Your task to perform on an android device: turn smart compose on in the gmail app Image 0: 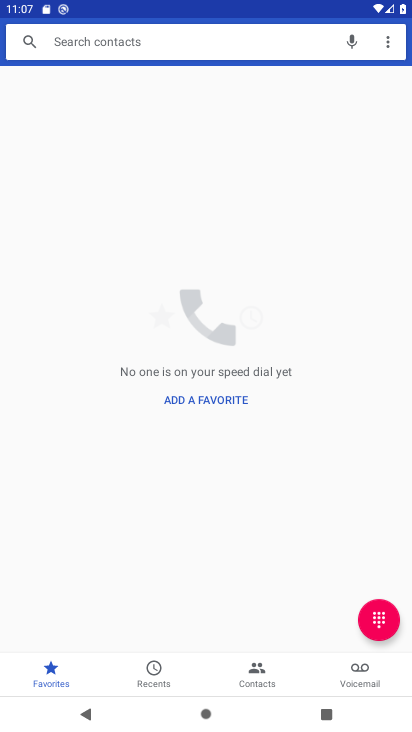
Step 0: press home button
Your task to perform on an android device: turn smart compose on in the gmail app Image 1: 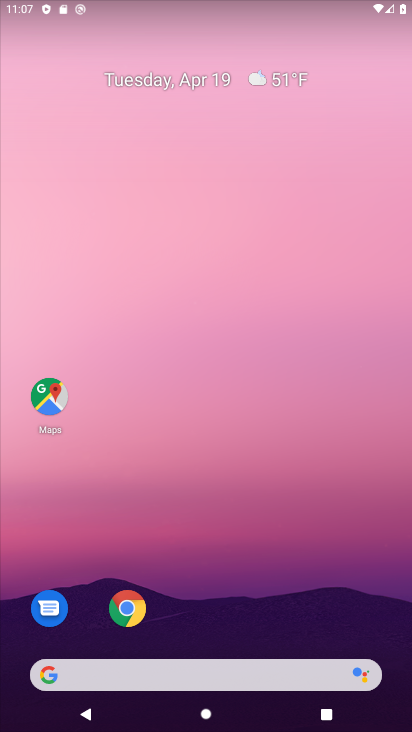
Step 1: drag from (373, 617) to (382, 88)
Your task to perform on an android device: turn smart compose on in the gmail app Image 2: 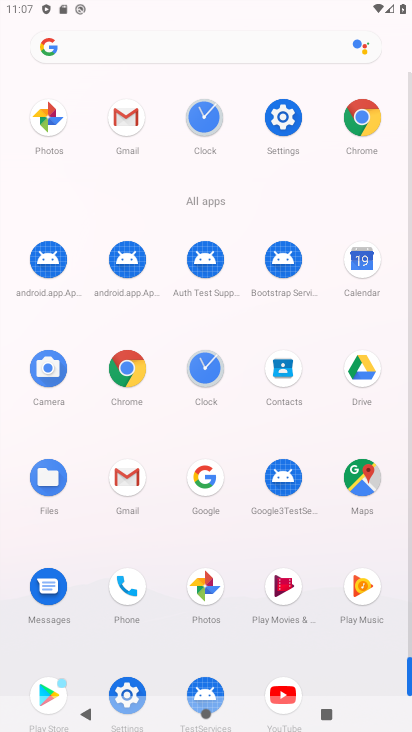
Step 2: click (117, 123)
Your task to perform on an android device: turn smart compose on in the gmail app Image 3: 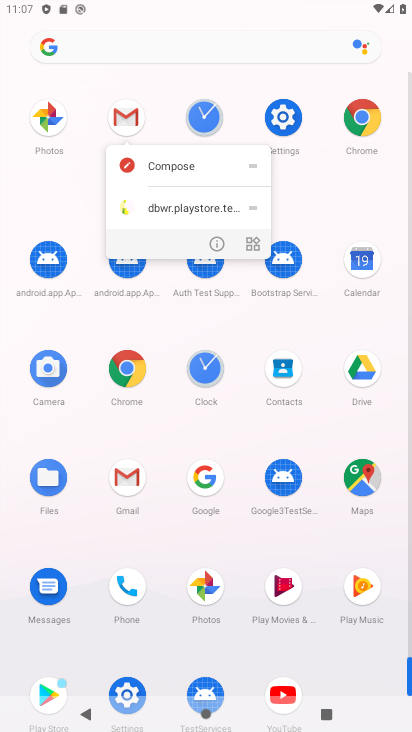
Step 3: click (117, 123)
Your task to perform on an android device: turn smart compose on in the gmail app Image 4: 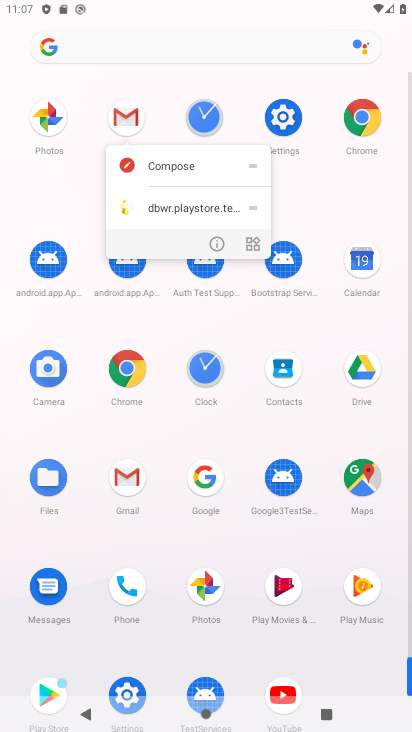
Step 4: click (117, 122)
Your task to perform on an android device: turn smart compose on in the gmail app Image 5: 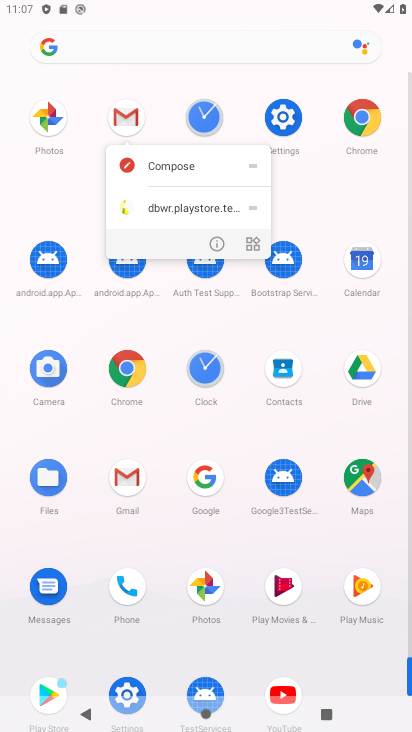
Step 5: click (117, 121)
Your task to perform on an android device: turn smart compose on in the gmail app Image 6: 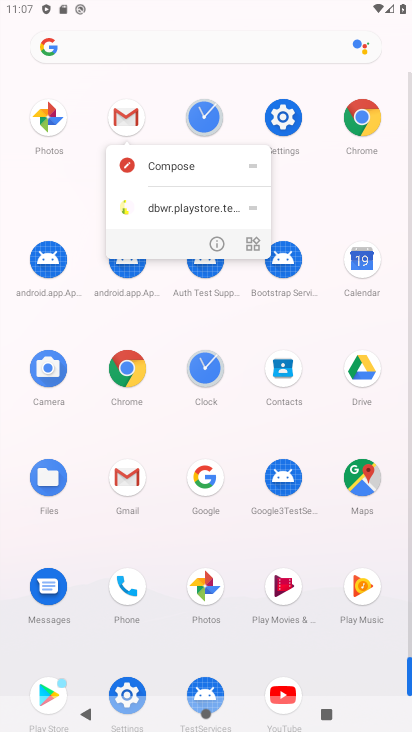
Step 6: click (128, 482)
Your task to perform on an android device: turn smart compose on in the gmail app Image 7: 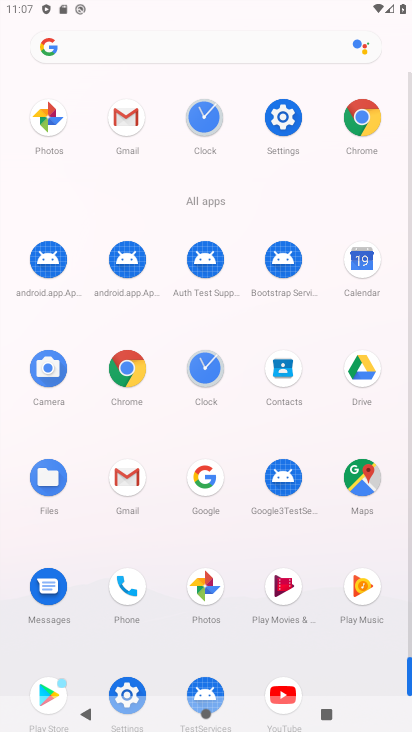
Step 7: click (132, 477)
Your task to perform on an android device: turn smart compose on in the gmail app Image 8: 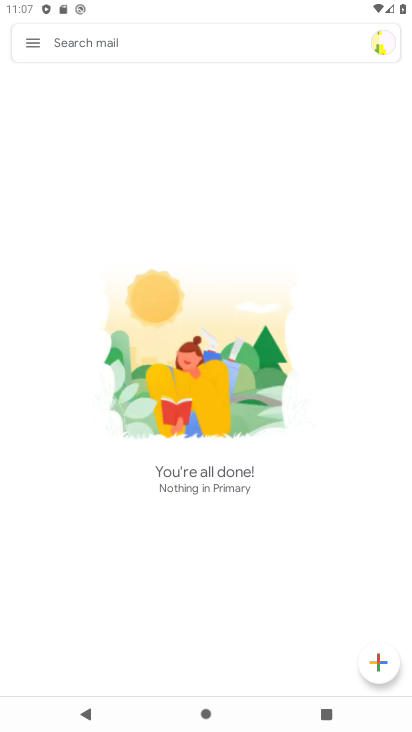
Step 8: click (30, 40)
Your task to perform on an android device: turn smart compose on in the gmail app Image 9: 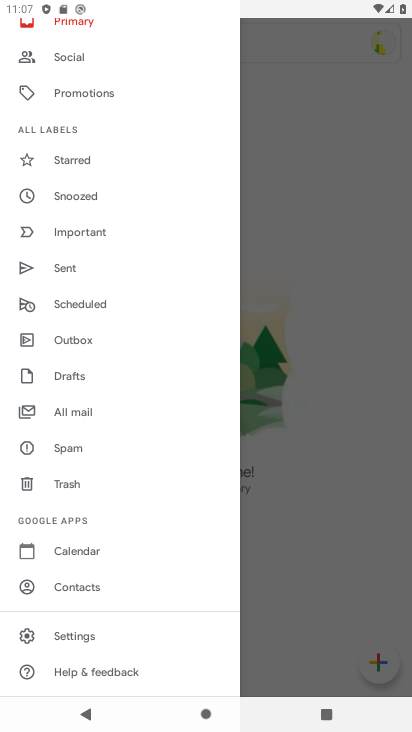
Step 9: click (88, 633)
Your task to perform on an android device: turn smart compose on in the gmail app Image 10: 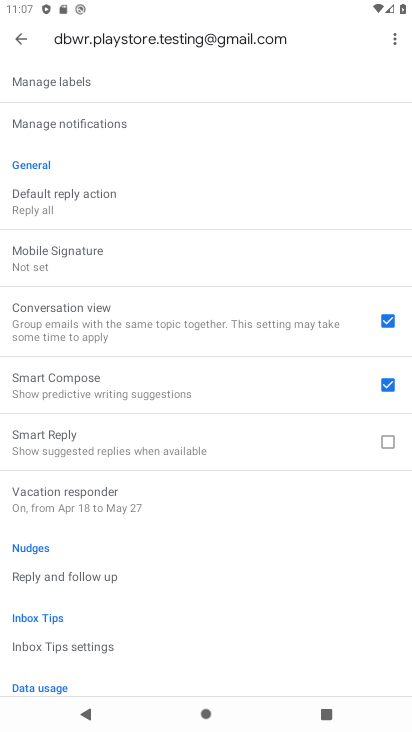
Step 10: task complete